Your task to perform on an android device: clear history in the chrome app Image 0: 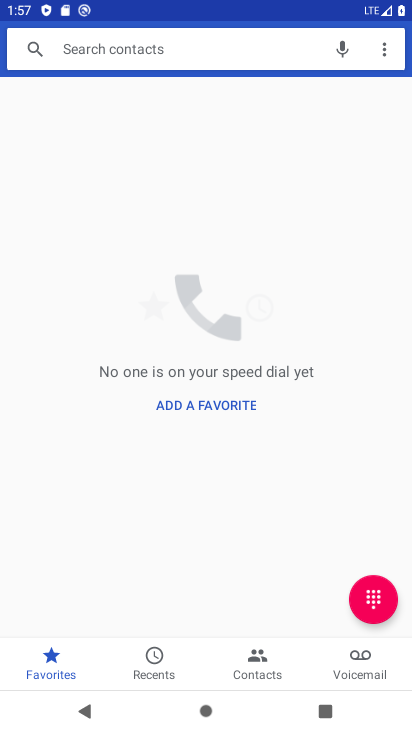
Step 0: press home button
Your task to perform on an android device: clear history in the chrome app Image 1: 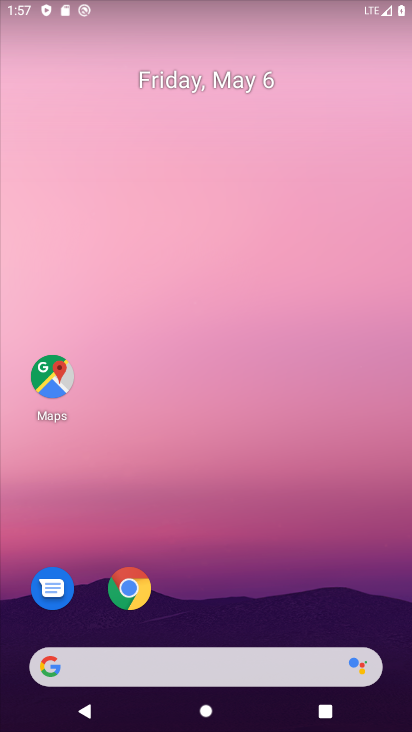
Step 1: drag from (354, 590) to (318, 170)
Your task to perform on an android device: clear history in the chrome app Image 2: 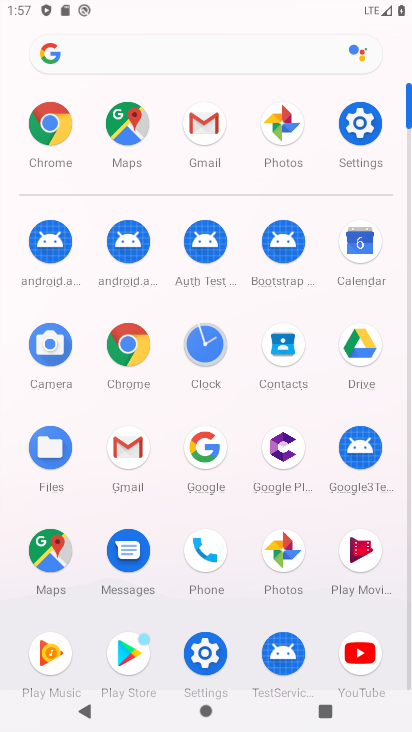
Step 2: click (129, 352)
Your task to perform on an android device: clear history in the chrome app Image 3: 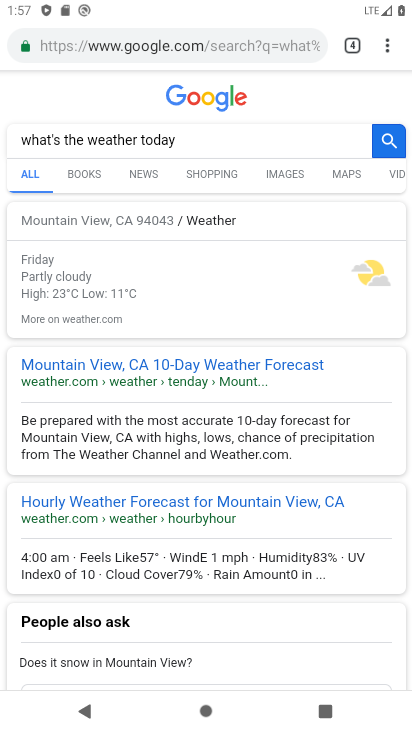
Step 3: drag from (389, 45) to (228, 254)
Your task to perform on an android device: clear history in the chrome app Image 4: 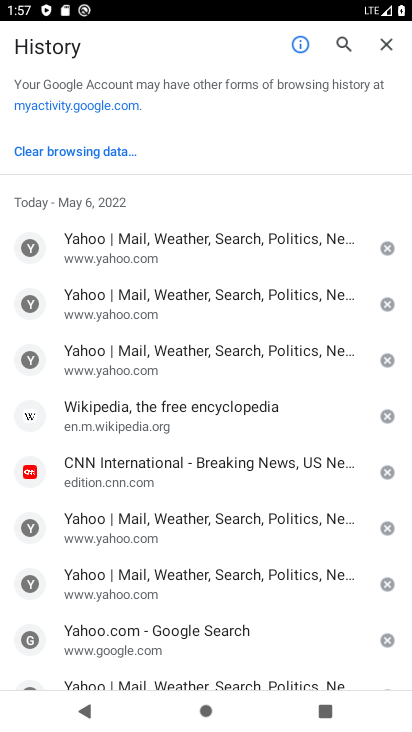
Step 4: click (116, 153)
Your task to perform on an android device: clear history in the chrome app Image 5: 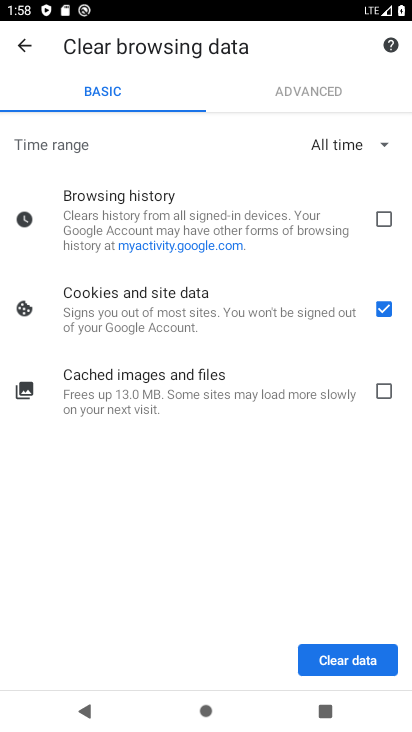
Step 5: click (386, 218)
Your task to perform on an android device: clear history in the chrome app Image 6: 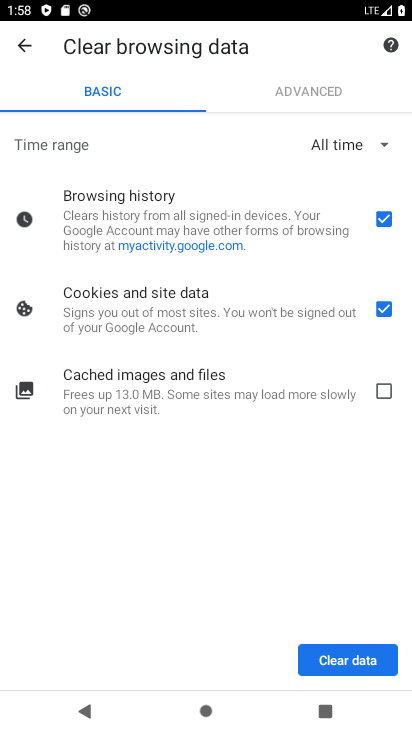
Step 6: click (358, 651)
Your task to perform on an android device: clear history in the chrome app Image 7: 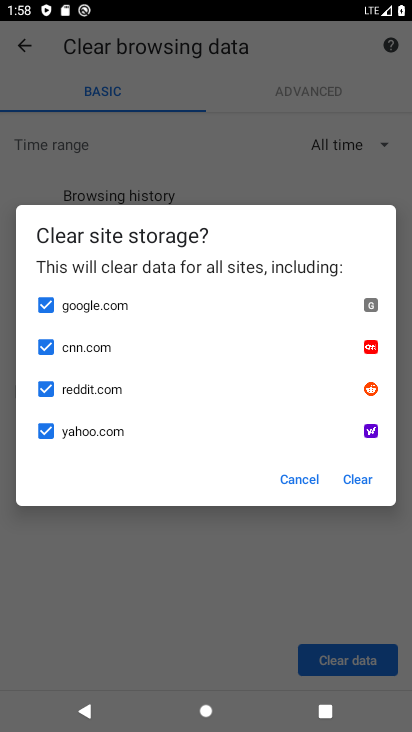
Step 7: click (355, 480)
Your task to perform on an android device: clear history in the chrome app Image 8: 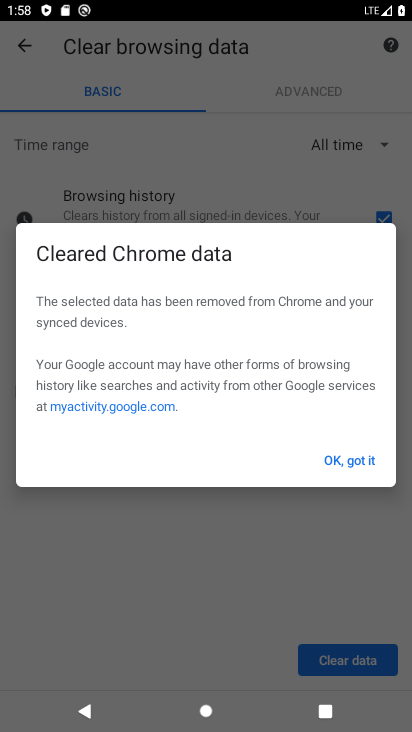
Step 8: click (338, 462)
Your task to perform on an android device: clear history in the chrome app Image 9: 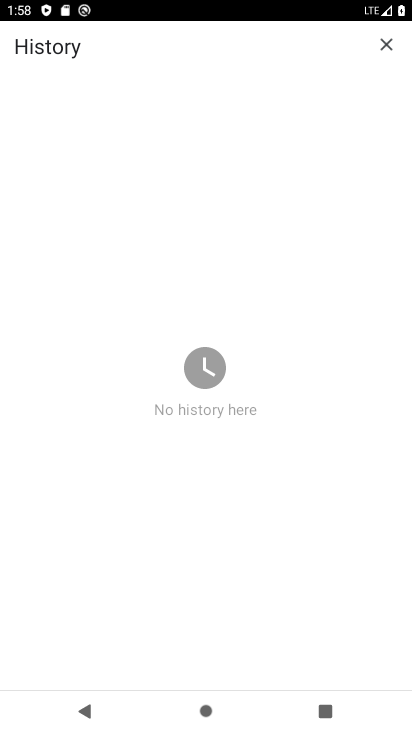
Step 9: task complete